Your task to perform on an android device: Show me recent news Image 0: 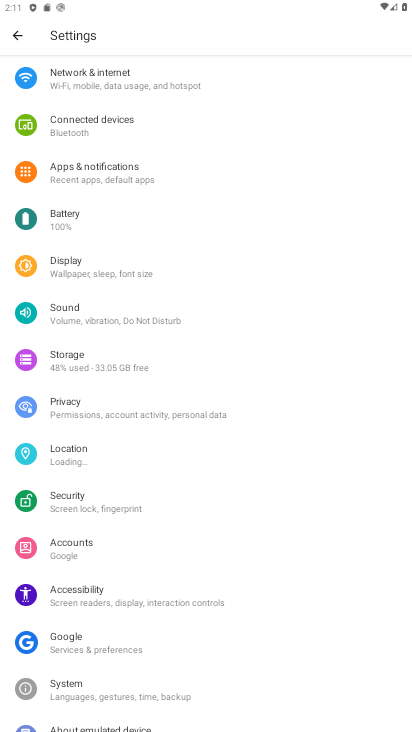
Step 0: press back button
Your task to perform on an android device: Show me recent news Image 1: 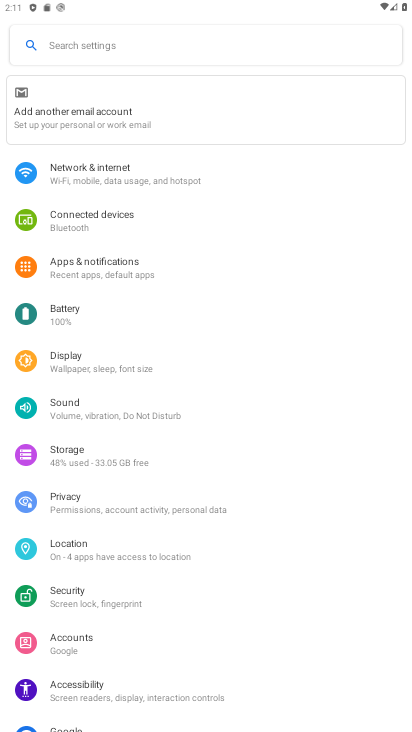
Step 1: press home button
Your task to perform on an android device: Show me recent news Image 2: 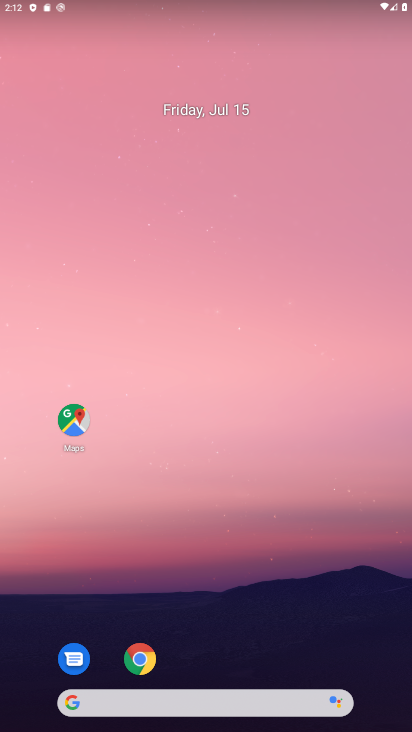
Step 2: drag from (264, 567) to (264, 46)
Your task to perform on an android device: Show me recent news Image 3: 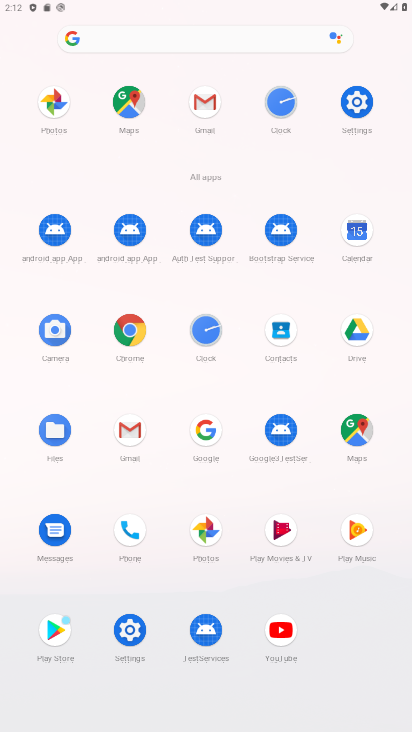
Step 3: click (127, 331)
Your task to perform on an android device: Show me recent news Image 4: 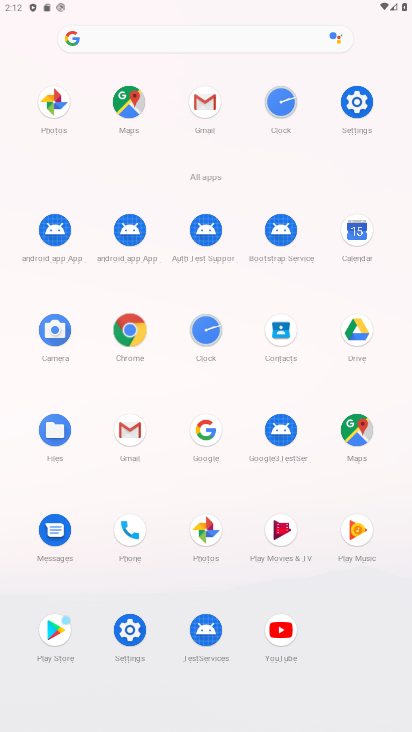
Step 4: click (127, 332)
Your task to perform on an android device: Show me recent news Image 5: 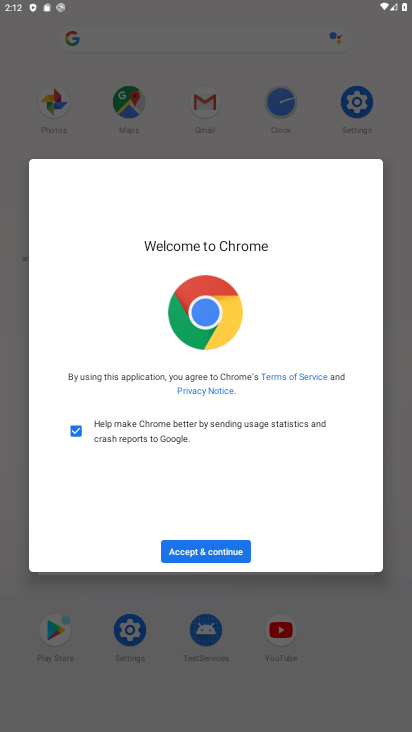
Step 5: click (223, 551)
Your task to perform on an android device: Show me recent news Image 6: 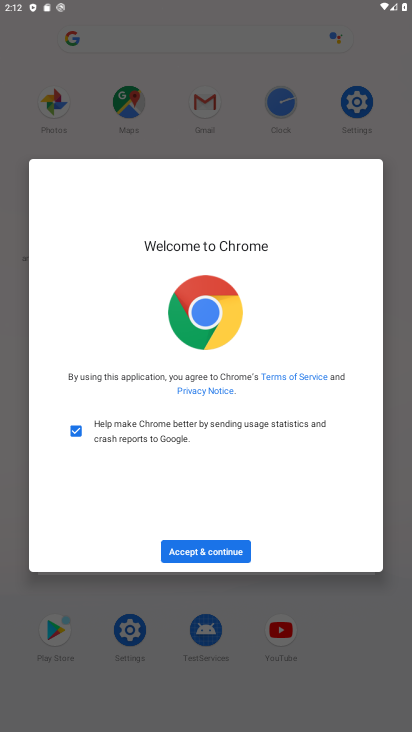
Step 6: click (222, 550)
Your task to perform on an android device: Show me recent news Image 7: 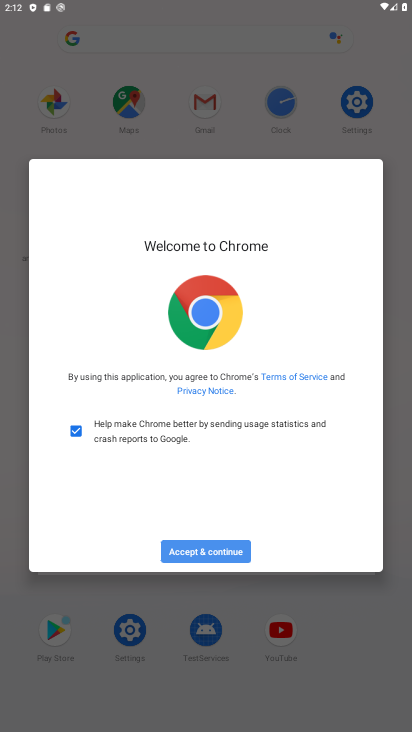
Step 7: click (221, 551)
Your task to perform on an android device: Show me recent news Image 8: 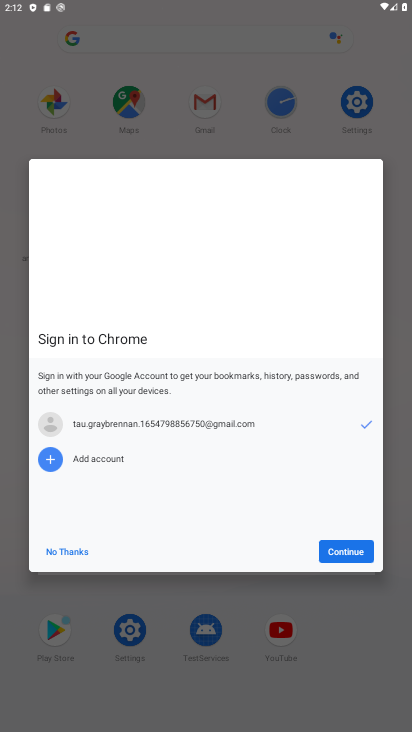
Step 8: click (332, 552)
Your task to perform on an android device: Show me recent news Image 9: 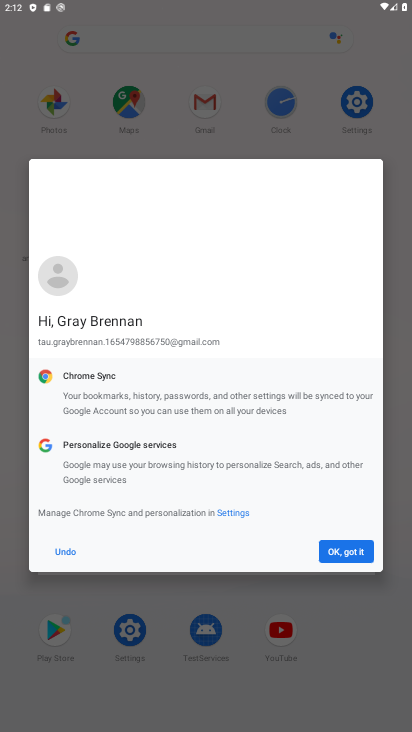
Step 9: click (343, 548)
Your task to perform on an android device: Show me recent news Image 10: 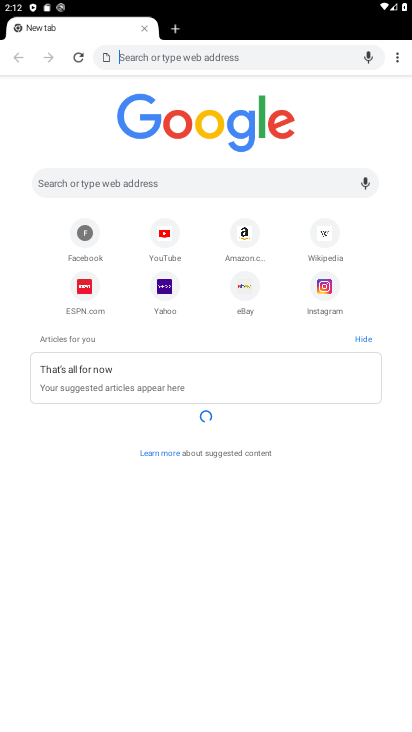
Step 10: click (403, 56)
Your task to perform on an android device: Show me recent news Image 11: 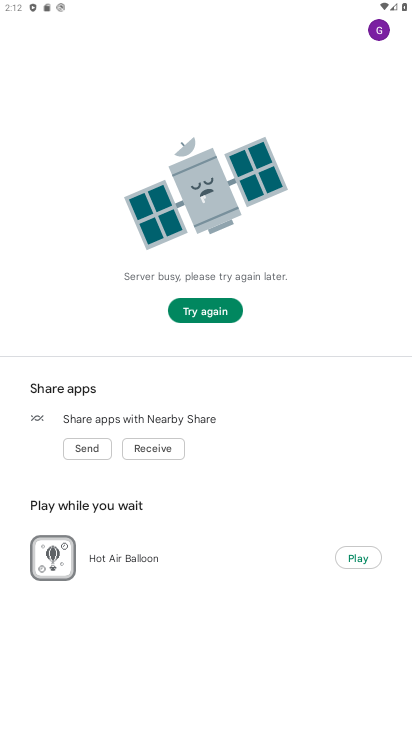
Step 11: task complete